Your task to perform on an android device: turn on bluetooth scan Image 0: 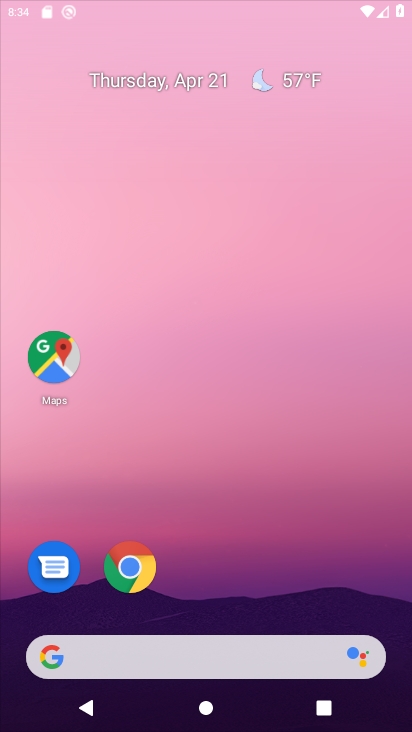
Step 0: drag from (210, 624) to (207, 2)
Your task to perform on an android device: turn on bluetooth scan Image 1: 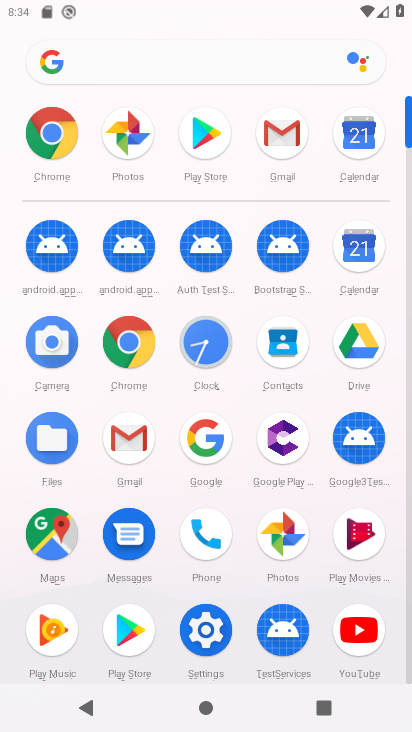
Step 1: click (222, 632)
Your task to perform on an android device: turn on bluetooth scan Image 2: 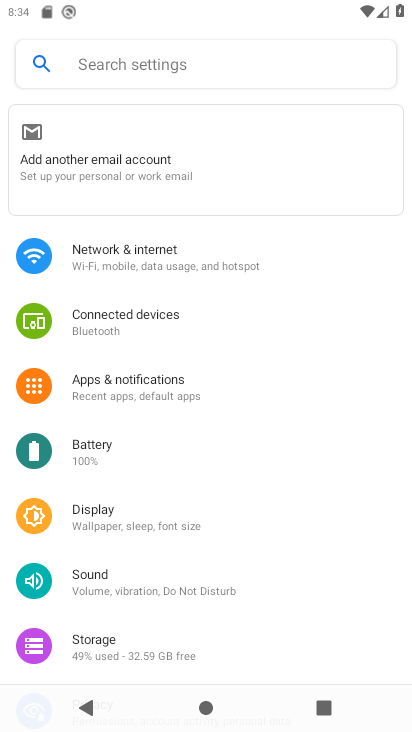
Step 2: drag from (216, 637) to (214, 346)
Your task to perform on an android device: turn on bluetooth scan Image 3: 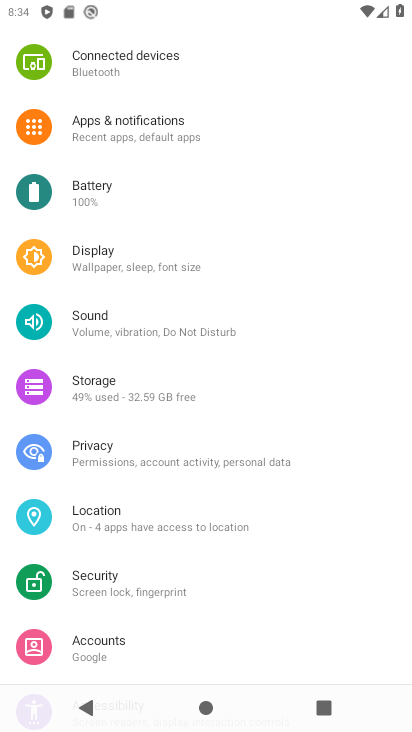
Step 3: click (123, 513)
Your task to perform on an android device: turn on bluetooth scan Image 4: 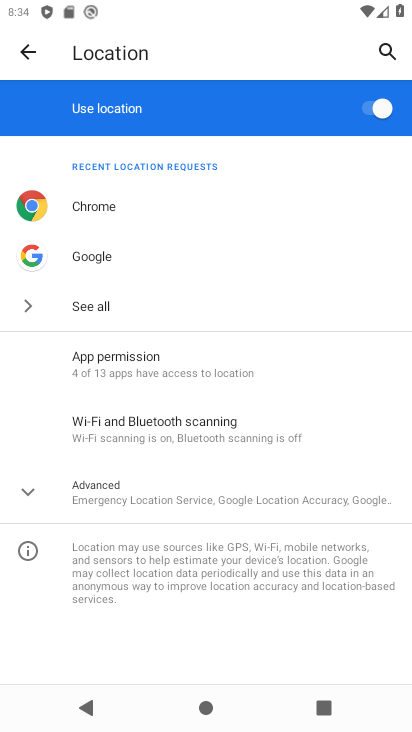
Step 4: click (118, 436)
Your task to perform on an android device: turn on bluetooth scan Image 5: 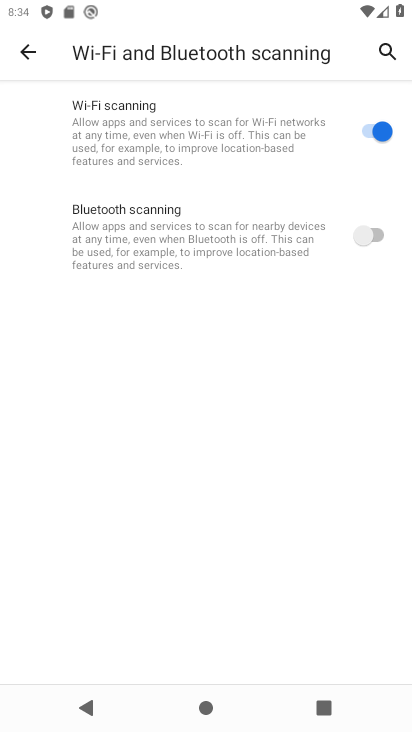
Step 5: click (359, 232)
Your task to perform on an android device: turn on bluetooth scan Image 6: 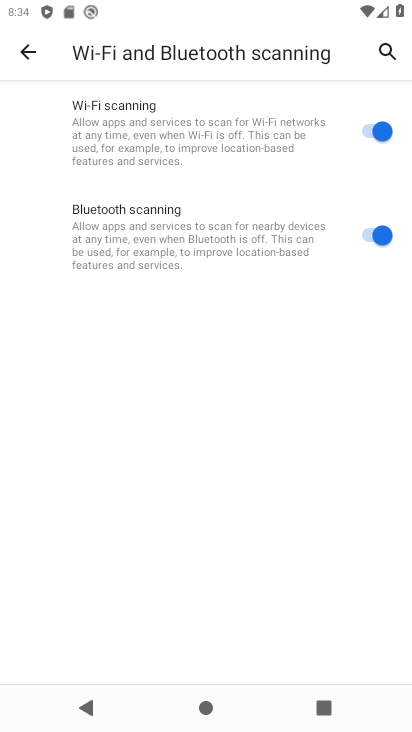
Step 6: task complete